Your task to perform on an android device: turn off wifi Image 0: 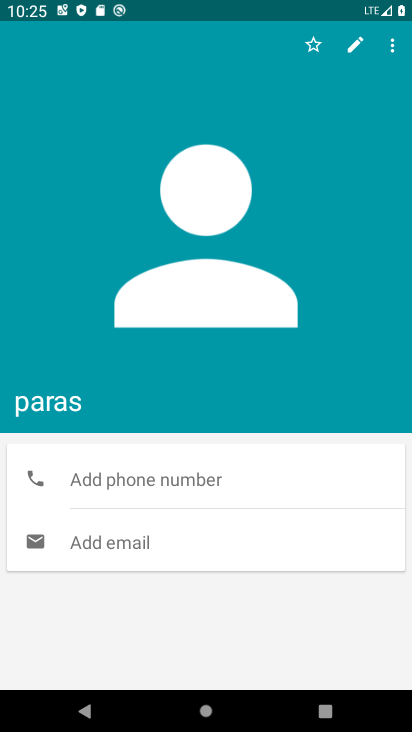
Step 0: press home button
Your task to perform on an android device: turn off wifi Image 1: 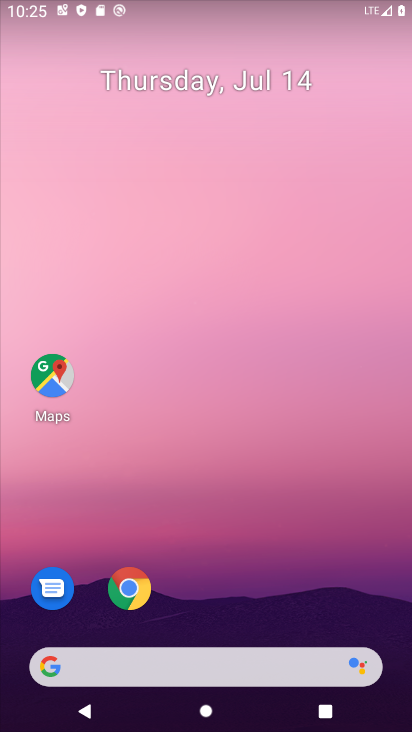
Step 1: task complete